Your task to perform on an android device: see sites visited before in the chrome app Image 0: 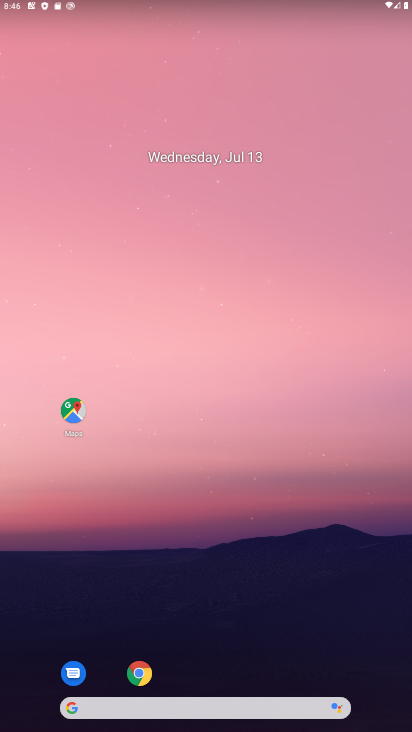
Step 0: drag from (351, 615) to (327, 109)
Your task to perform on an android device: see sites visited before in the chrome app Image 1: 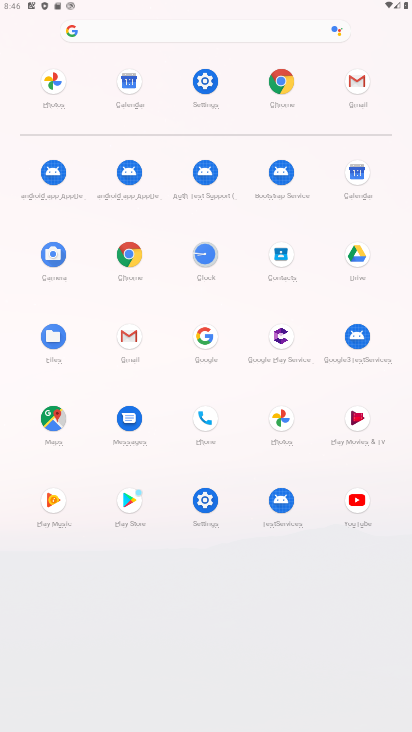
Step 1: click (132, 252)
Your task to perform on an android device: see sites visited before in the chrome app Image 2: 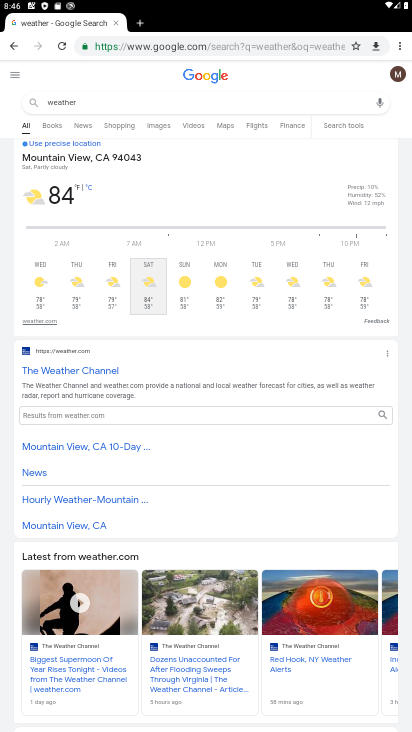
Step 2: task complete